Your task to perform on an android device: turn vacation reply on in the gmail app Image 0: 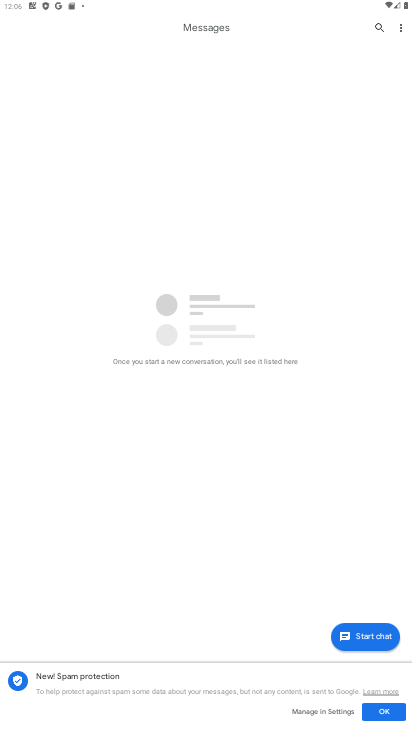
Step 0: press home button
Your task to perform on an android device: turn vacation reply on in the gmail app Image 1: 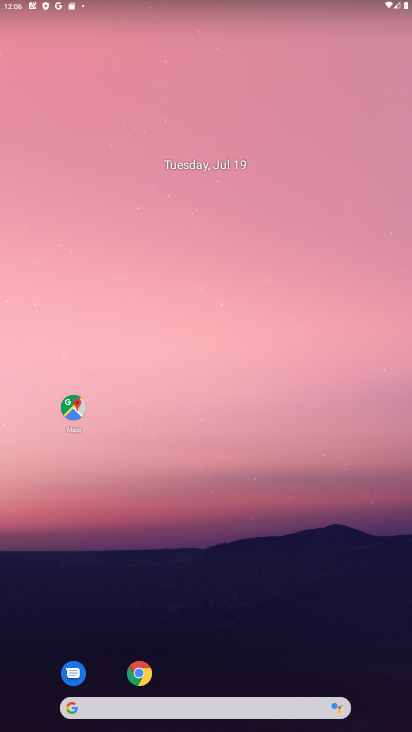
Step 1: drag from (160, 705) to (249, 31)
Your task to perform on an android device: turn vacation reply on in the gmail app Image 2: 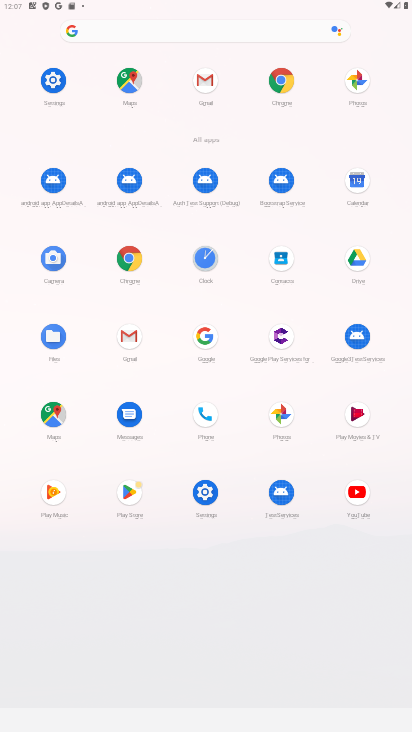
Step 2: click (205, 81)
Your task to perform on an android device: turn vacation reply on in the gmail app Image 3: 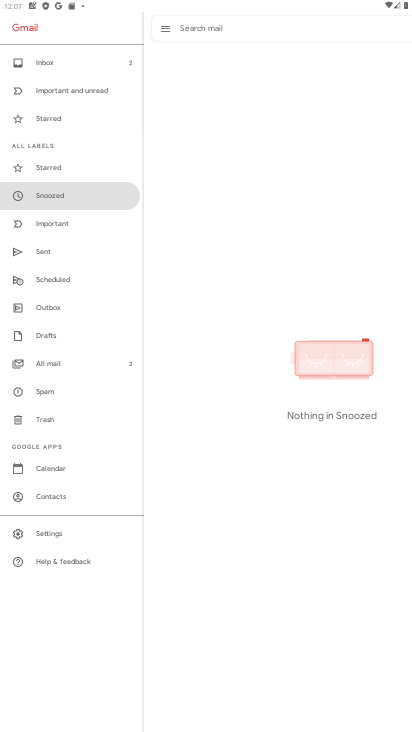
Step 3: click (81, 536)
Your task to perform on an android device: turn vacation reply on in the gmail app Image 4: 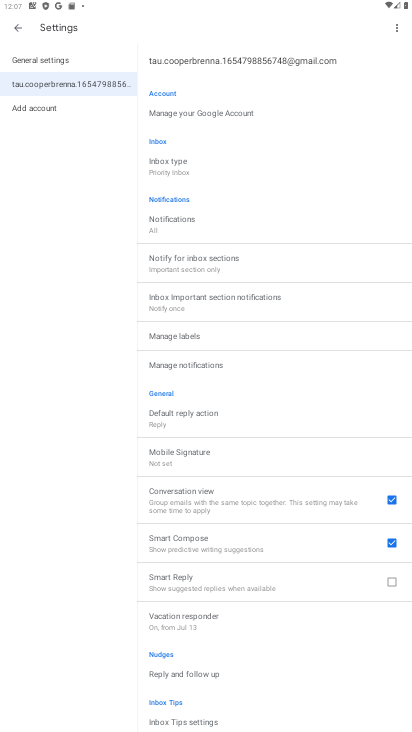
Step 4: click (191, 618)
Your task to perform on an android device: turn vacation reply on in the gmail app Image 5: 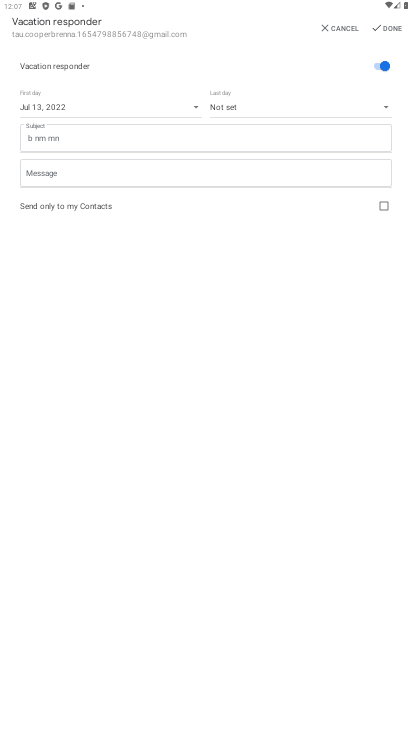
Step 5: click (385, 29)
Your task to perform on an android device: turn vacation reply on in the gmail app Image 6: 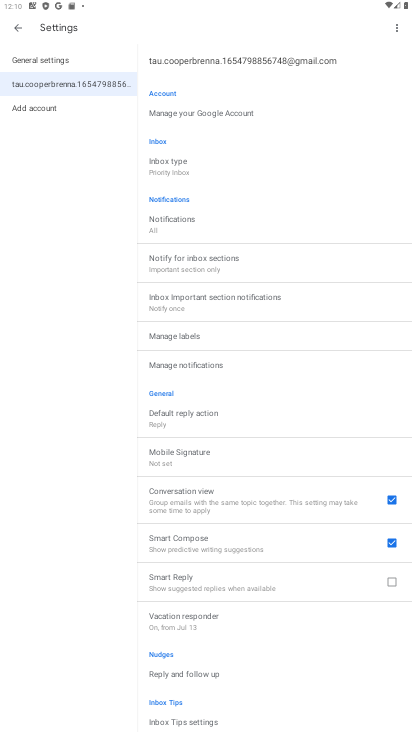
Step 6: click (257, 617)
Your task to perform on an android device: turn vacation reply on in the gmail app Image 7: 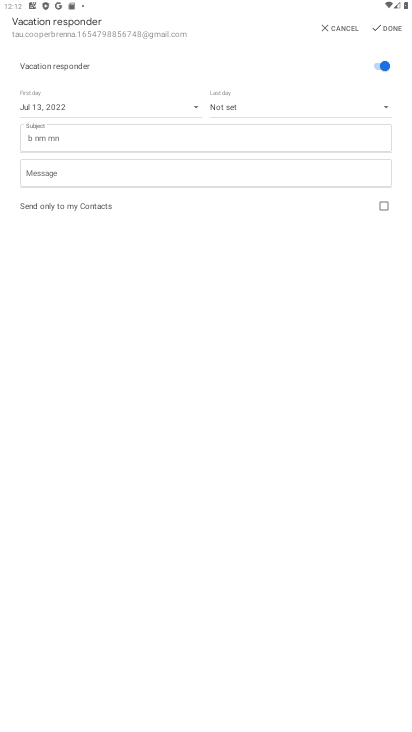
Step 7: click (387, 32)
Your task to perform on an android device: turn vacation reply on in the gmail app Image 8: 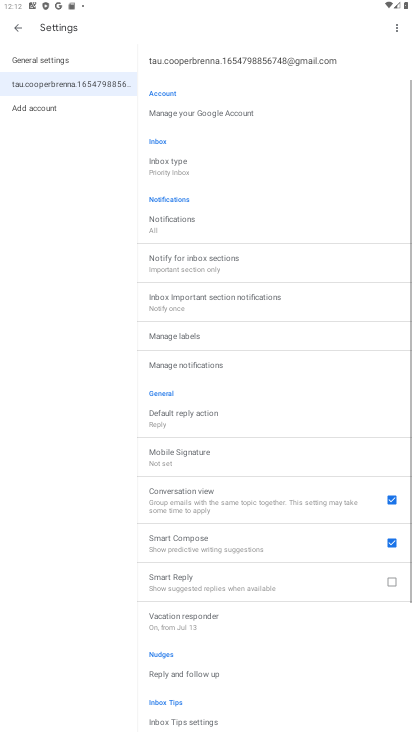
Step 8: task complete